Your task to perform on an android device: Open the calendar and show me this week's events? Image 0: 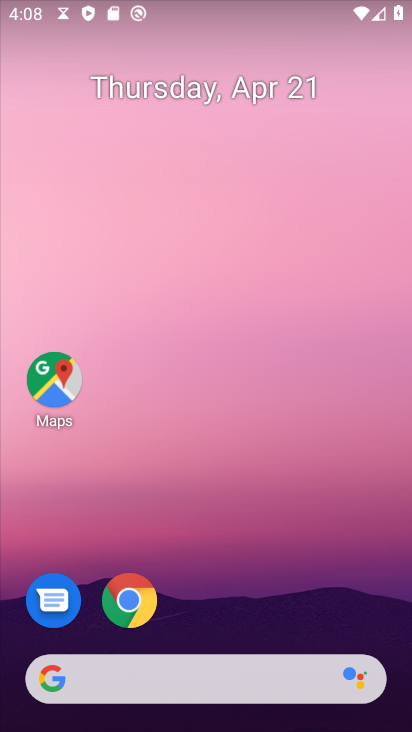
Step 0: drag from (211, 615) to (218, 35)
Your task to perform on an android device: Open the calendar and show me this week's events? Image 1: 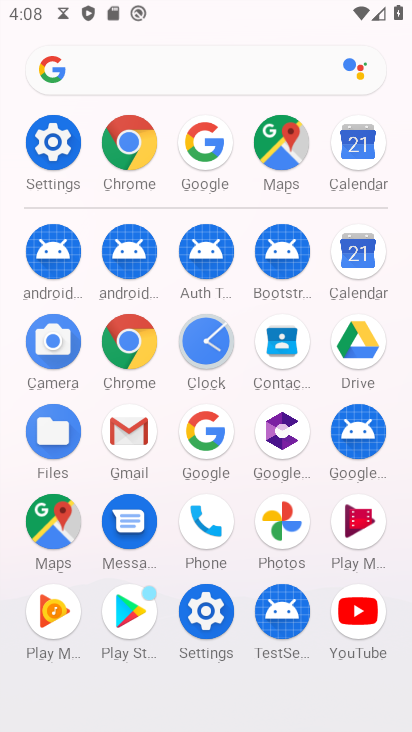
Step 1: click (361, 254)
Your task to perform on an android device: Open the calendar and show me this week's events? Image 2: 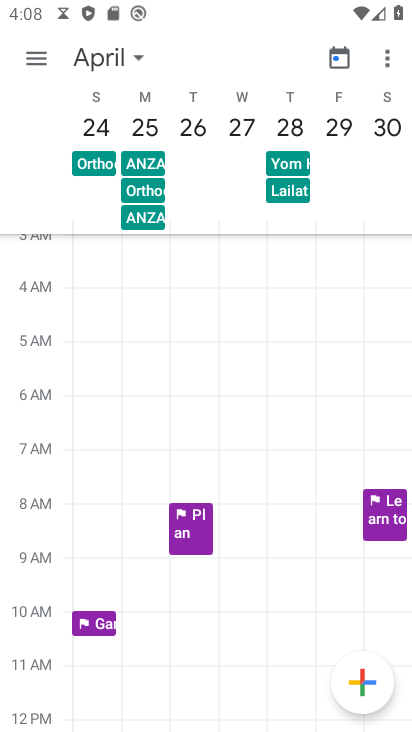
Step 2: click (342, 61)
Your task to perform on an android device: Open the calendar and show me this week's events? Image 3: 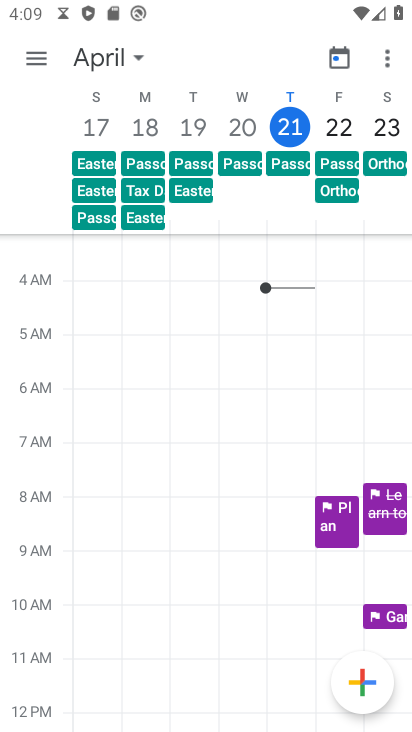
Step 3: click (136, 59)
Your task to perform on an android device: Open the calendar and show me this week's events? Image 4: 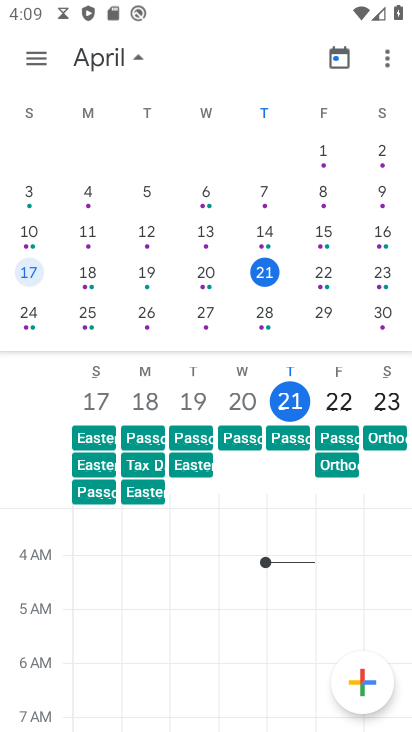
Step 4: click (141, 315)
Your task to perform on an android device: Open the calendar and show me this week's events? Image 5: 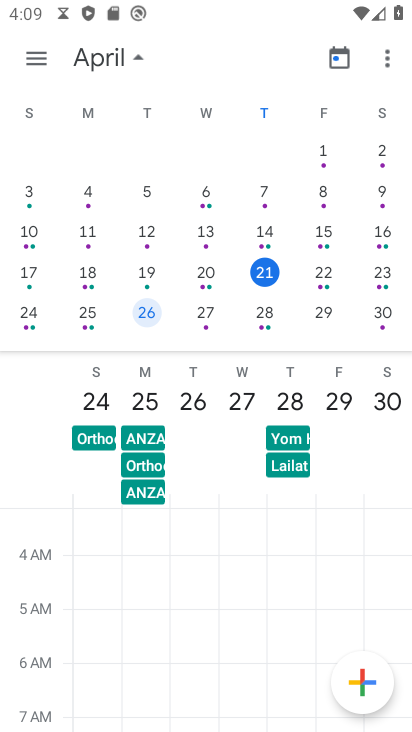
Step 5: click (44, 56)
Your task to perform on an android device: Open the calendar and show me this week's events? Image 6: 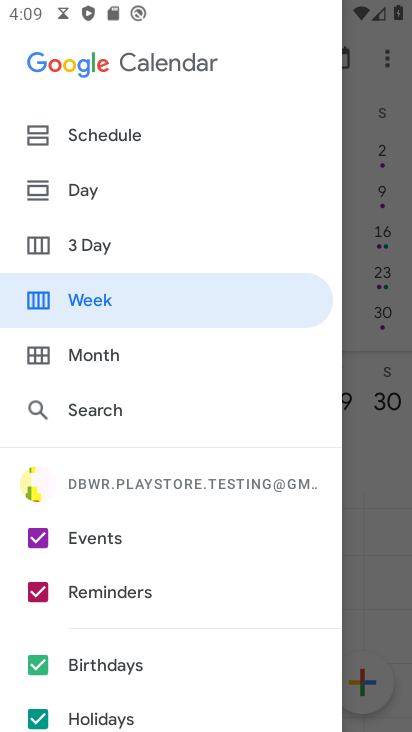
Step 6: click (92, 294)
Your task to perform on an android device: Open the calendar and show me this week's events? Image 7: 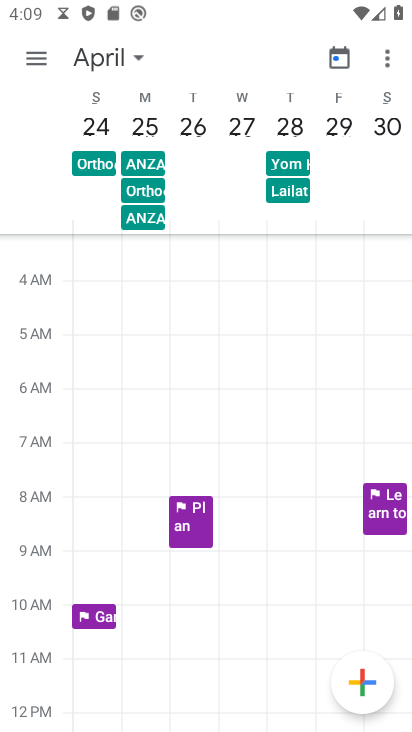
Step 7: task complete